Your task to perform on an android device: check battery use Image 0: 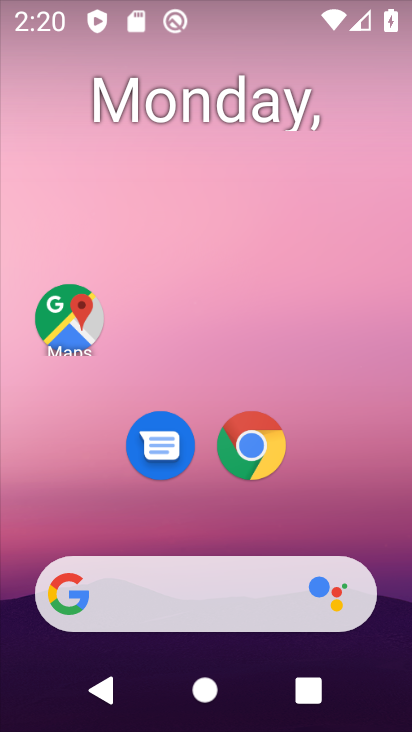
Step 0: click (336, 53)
Your task to perform on an android device: check battery use Image 1: 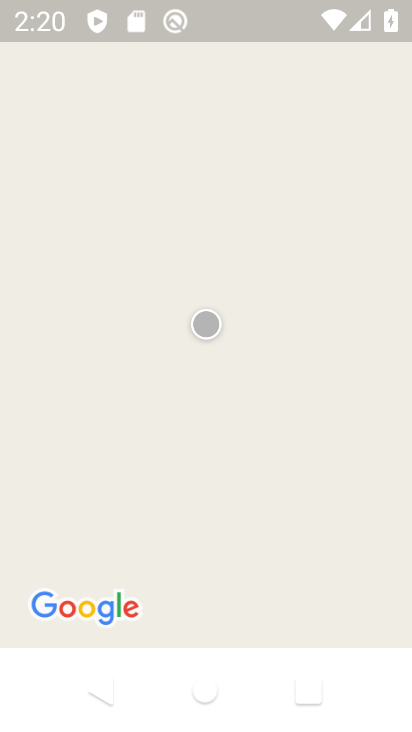
Step 1: press home button
Your task to perform on an android device: check battery use Image 2: 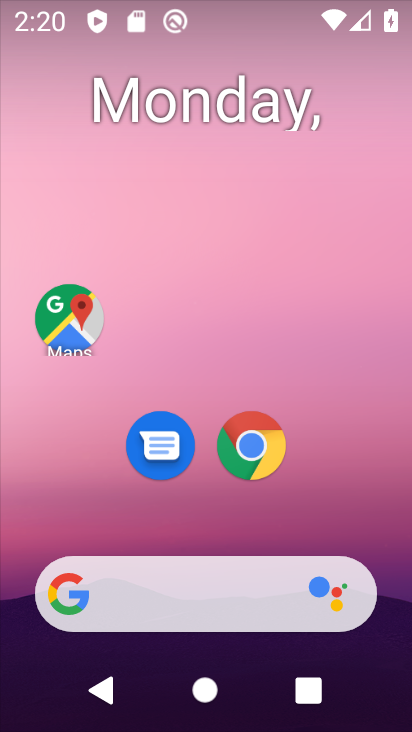
Step 2: drag from (217, 537) to (410, 296)
Your task to perform on an android device: check battery use Image 3: 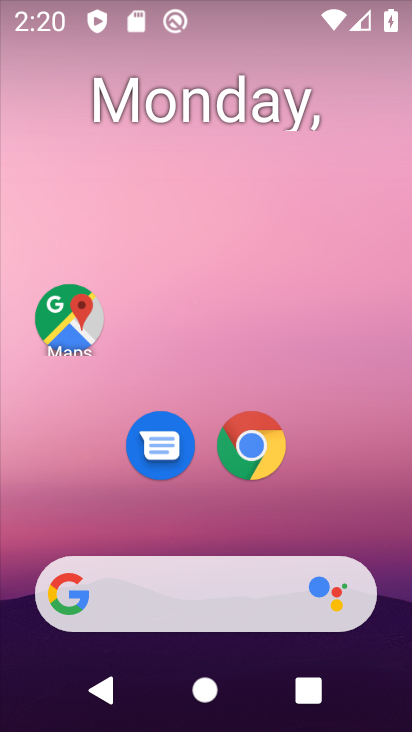
Step 3: click (165, 179)
Your task to perform on an android device: check battery use Image 4: 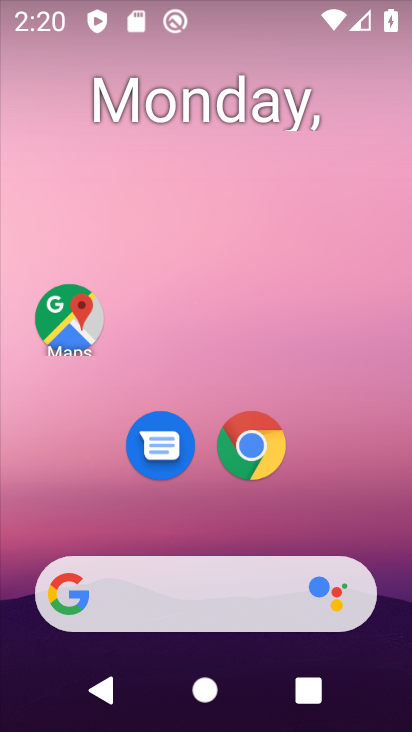
Step 4: drag from (183, 534) to (152, 94)
Your task to perform on an android device: check battery use Image 5: 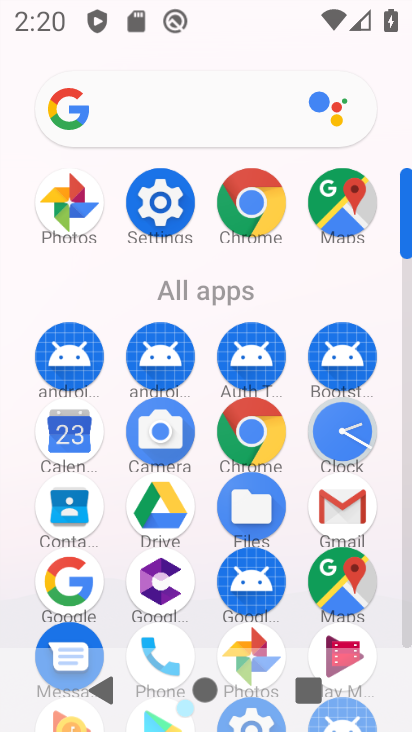
Step 5: click (163, 208)
Your task to perform on an android device: check battery use Image 6: 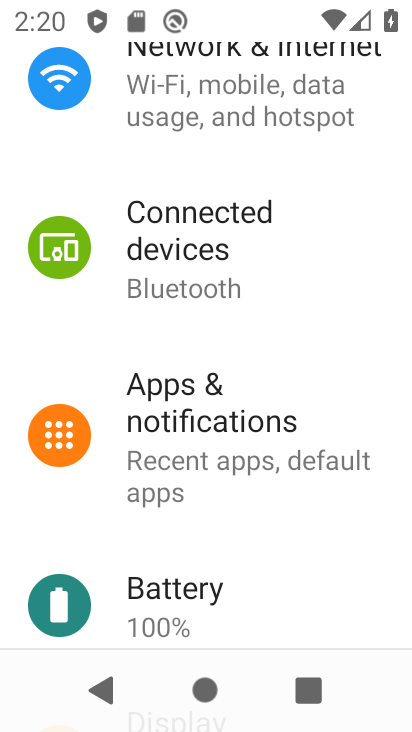
Step 6: click (143, 593)
Your task to perform on an android device: check battery use Image 7: 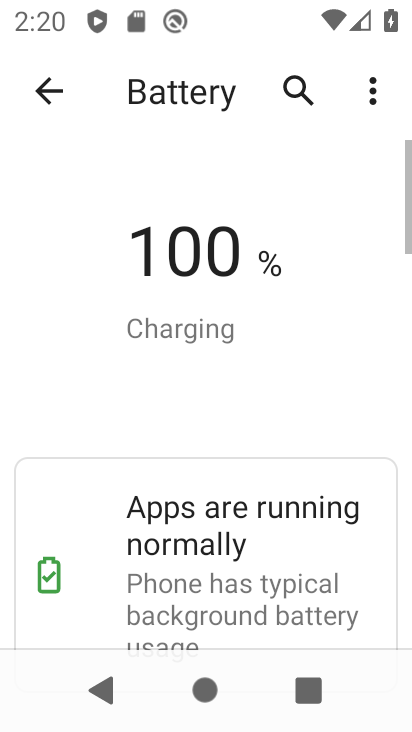
Step 7: click (383, 92)
Your task to perform on an android device: check battery use Image 8: 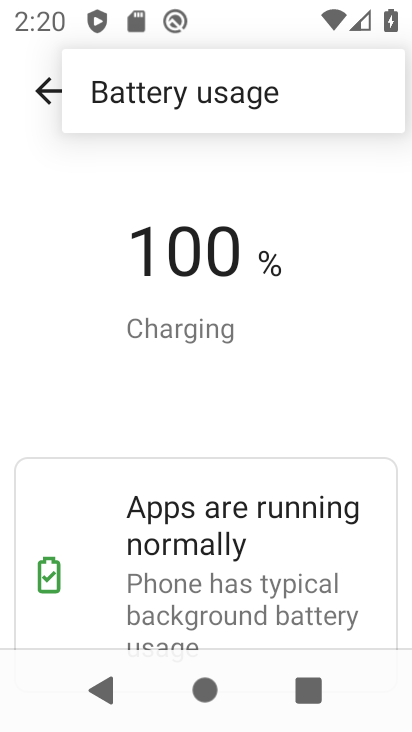
Step 8: click (176, 116)
Your task to perform on an android device: check battery use Image 9: 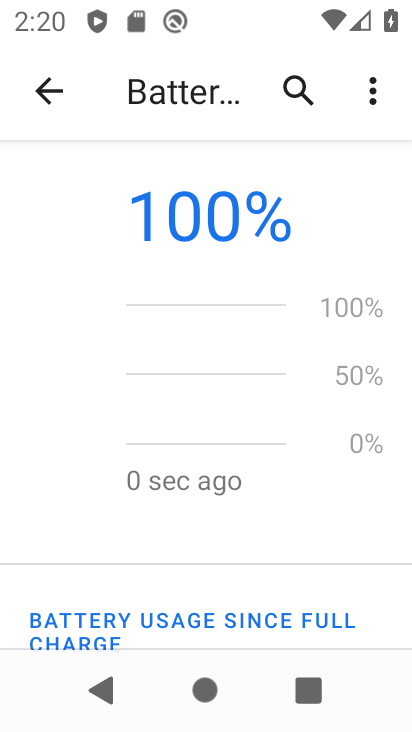
Step 9: task complete